Your task to perform on an android device: Toggle the flashlight Image 0: 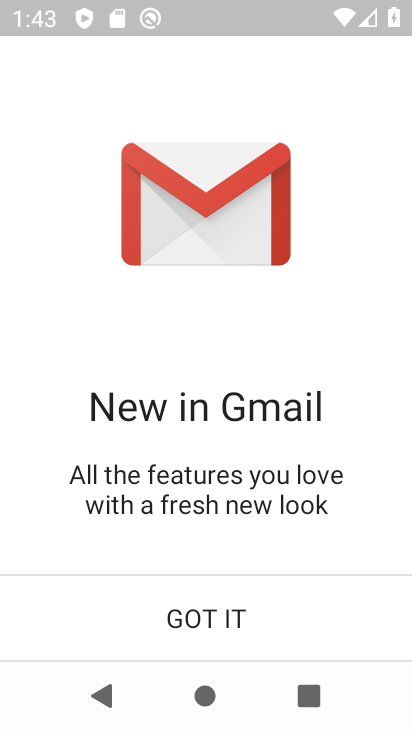
Step 0: press home button
Your task to perform on an android device: Toggle the flashlight Image 1: 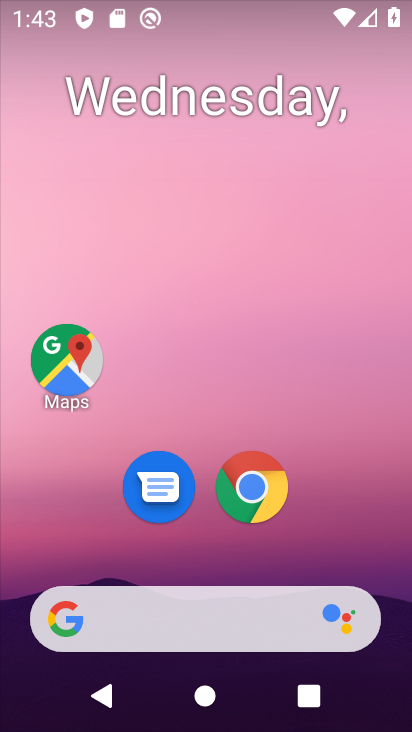
Step 1: drag from (333, 461) to (313, 120)
Your task to perform on an android device: Toggle the flashlight Image 2: 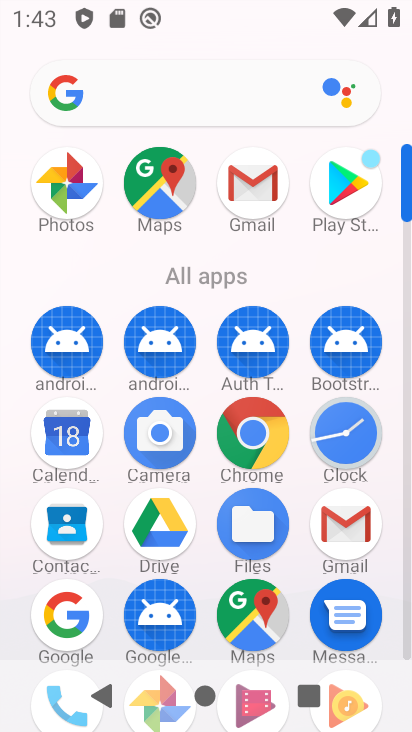
Step 2: drag from (275, 609) to (285, 252)
Your task to perform on an android device: Toggle the flashlight Image 3: 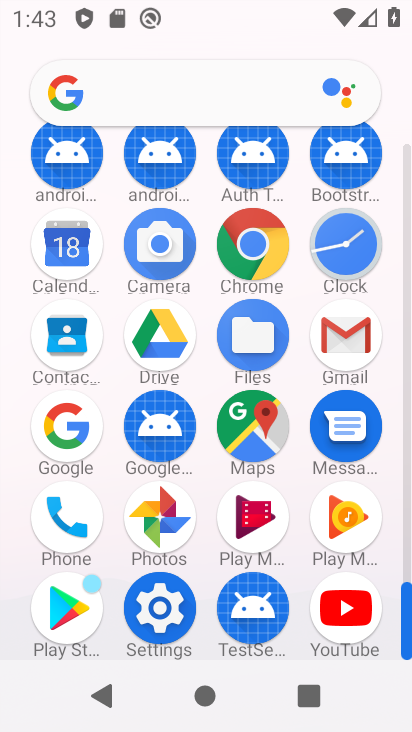
Step 3: click (164, 633)
Your task to perform on an android device: Toggle the flashlight Image 4: 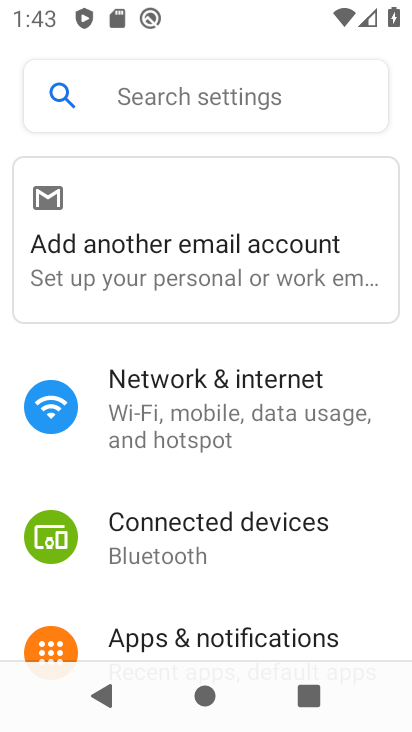
Step 4: click (185, 90)
Your task to perform on an android device: Toggle the flashlight Image 5: 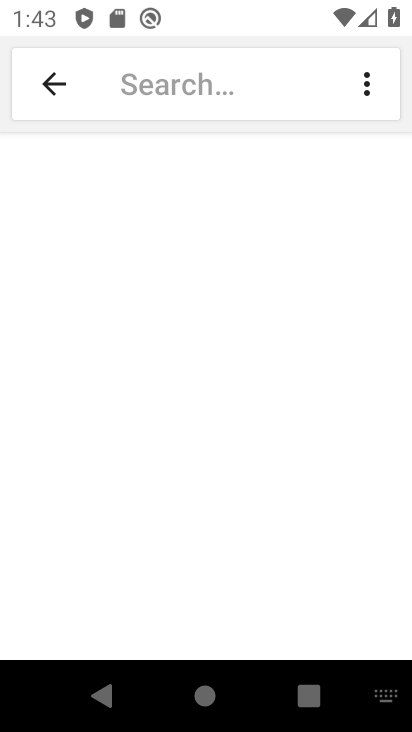
Step 5: type "flashlight"
Your task to perform on an android device: Toggle the flashlight Image 6: 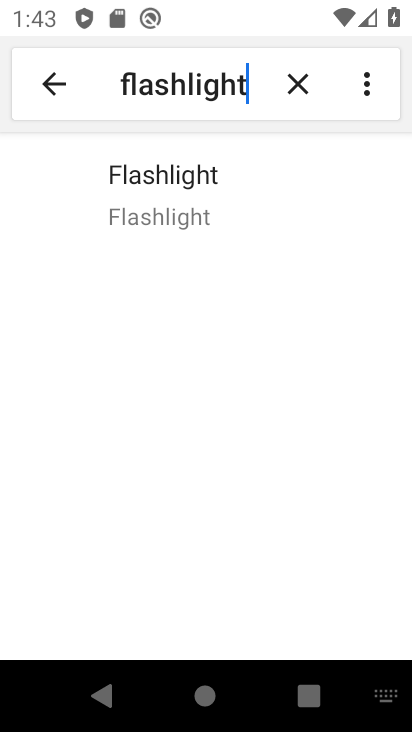
Step 6: click (225, 210)
Your task to perform on an android device: Toggle the flashlight Image 7: 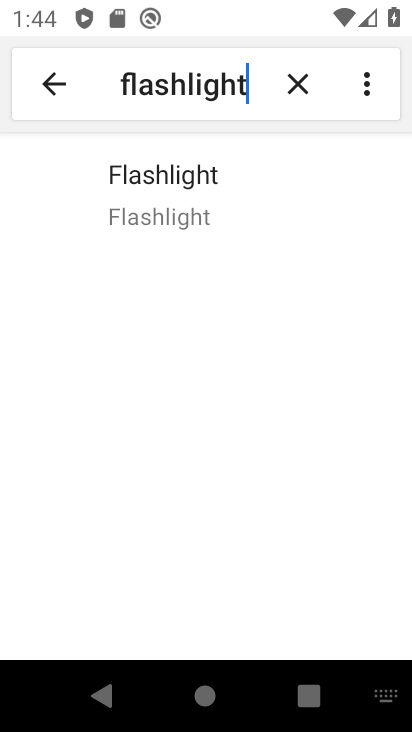
Step 7: click (214, 187)
Your task to perform on an android device: Toggle the flashlight Image 8: 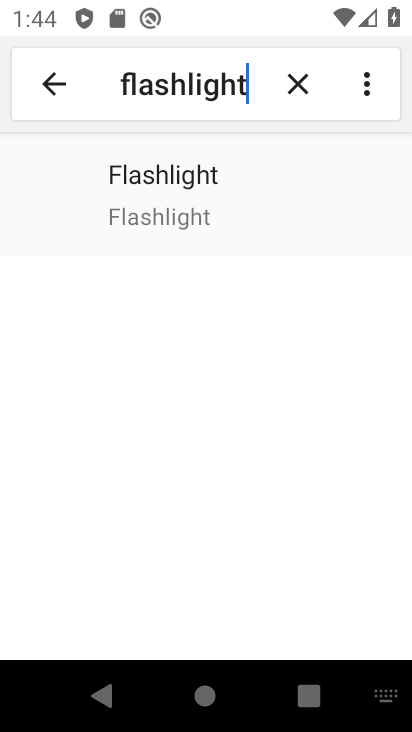
Step 8: task complete